Your task to perform on an android device: toggle improve location accuracy Image 0: 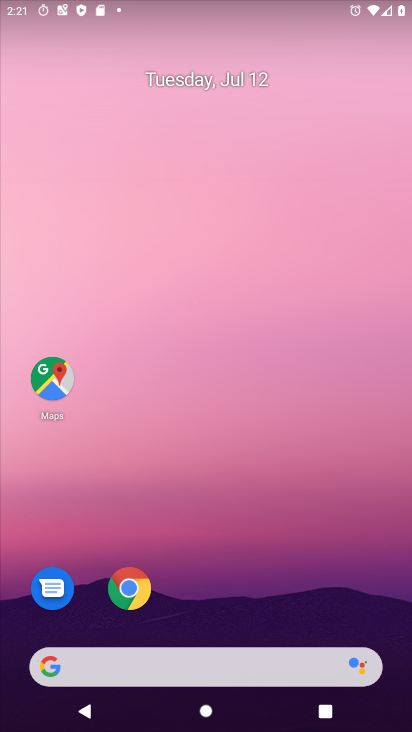
Step 0: click (295, 91)
Your task to perform on an android device: toggle improve location accuracy Image 1: 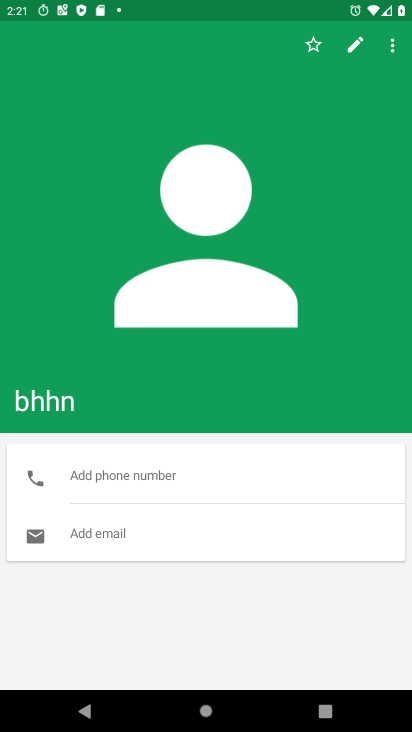
Step 1: drag from (161, 549) to (229, 187)
Your task to perform on an android device: toggle improve location accuracy Image 2: 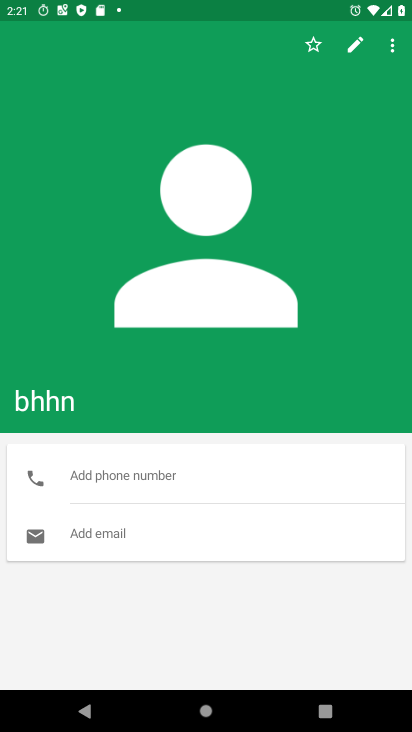
Step 2: press home button
Your task to perform on an android device: toggle improve location accuracy Image 3: 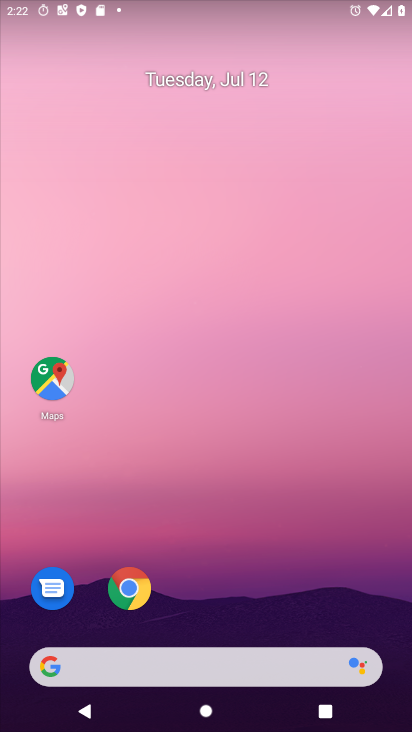
Step 3: drag from (206, 399) to (219, 145)
Your task to perform on an android device: toggle improve location accuracy Image 4: 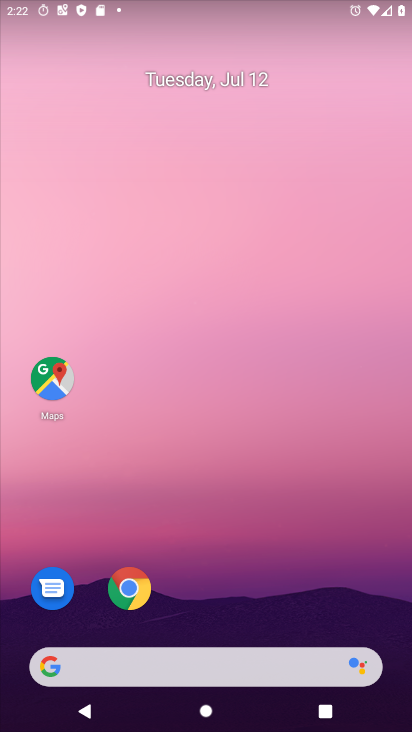
Step 4: drag from (223, 608) to (240, 0)
Your task to perform on an android device: toggle improve location accuracy Image 5: 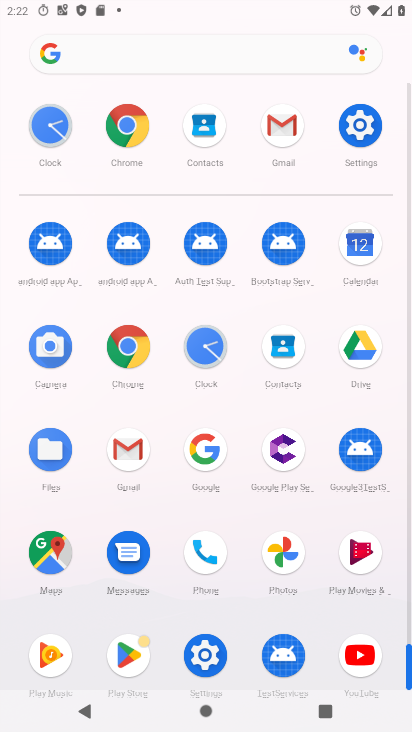
Step 5: click (361, 128)
Your task to perform on an android device: toggle improve location accuracy Image 6: 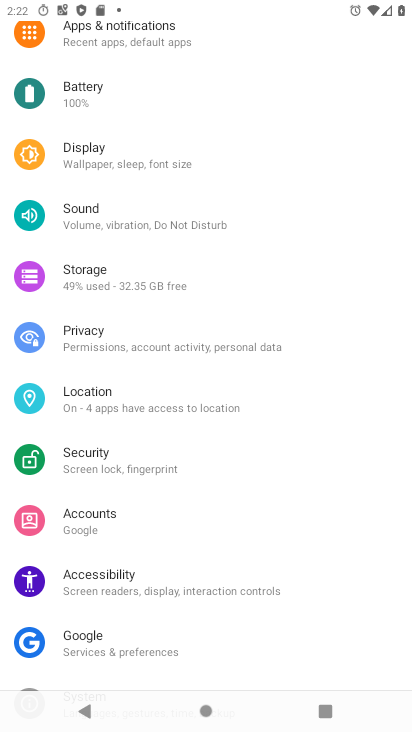
Step 6: drag from (154, 488) to (255, 159)
Your task to perform on an android device: toggle improve location accuracy Image 7: 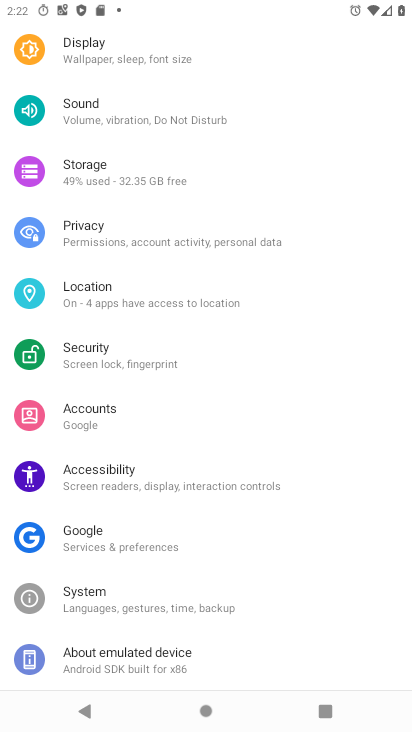
Step 7: drag from (174, 125) to (215, 518)
Your task to perform on an android device: toggle improve location accuracy Image 8: 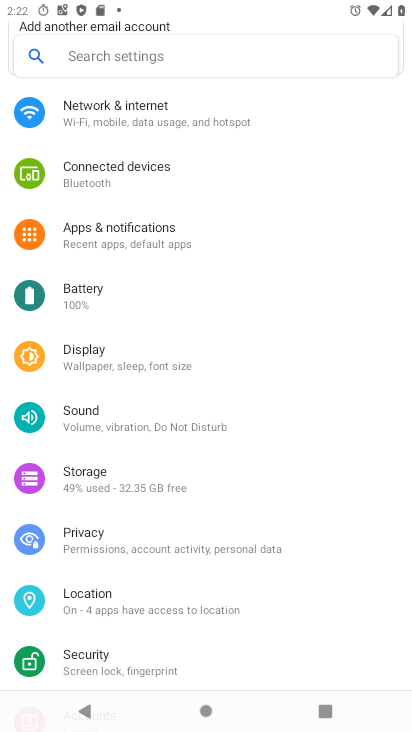
Step 8: click (109, 605)
Your task to perform on an android device: toggle improve location accuracy Image 9: 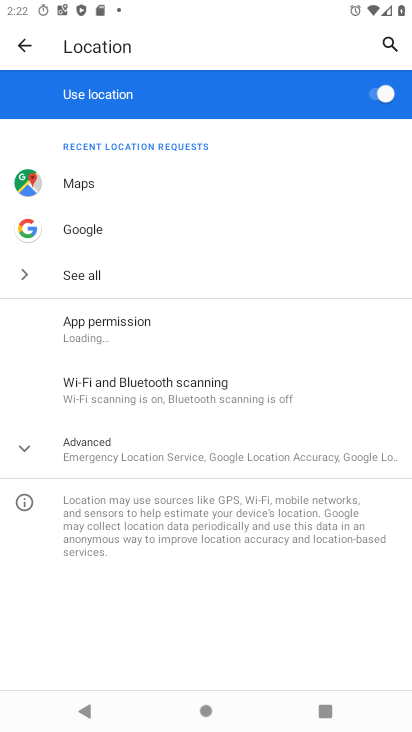
Step 9: click (117, 452)
Your task to perform on an android device: toggle improve location accuracy Image 10: 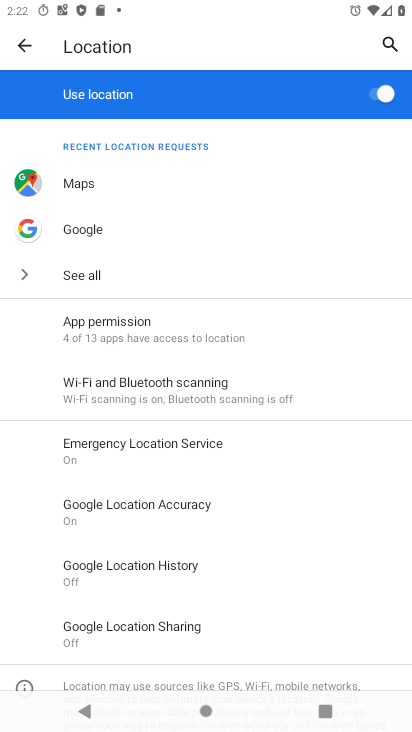
Step 10: click (165, 510)
Your task to perform on an android device: toggle improve location accuracy Image 11: 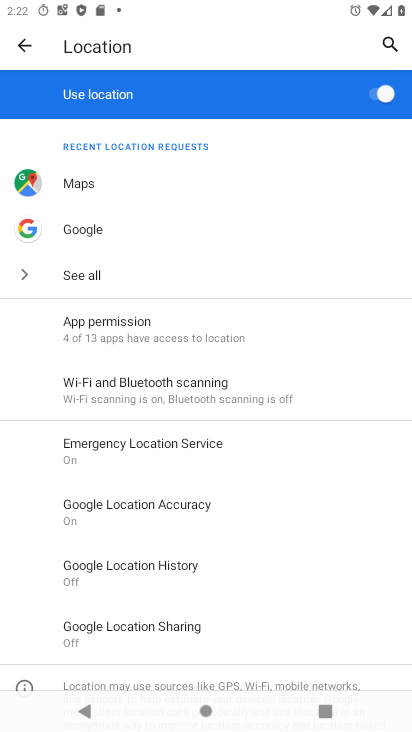
Step 11: click (165, 510)
Your task to perform on an android device: toggle improve location accuracy Image 12: 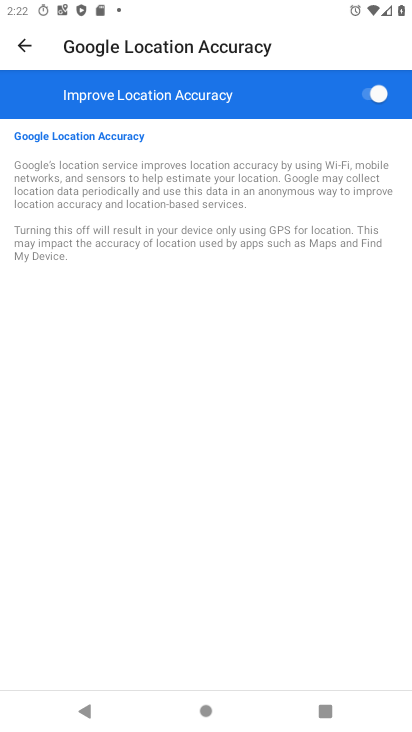
Step 12: click (378, 99)
Your task to perform on an android device: toggle improve location accuracy Image 13: 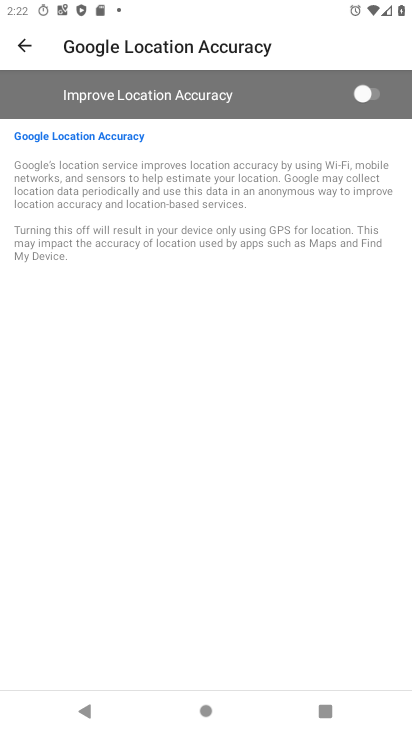
Step 13: task complete